Your task to perform on an android device: Go to display settings Image 0: 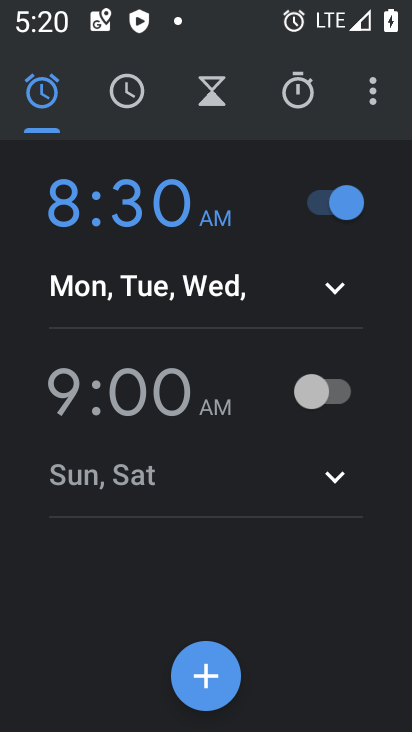
Step 0: press home button
Your task to perform on an android device: Go to display settings Image 1: 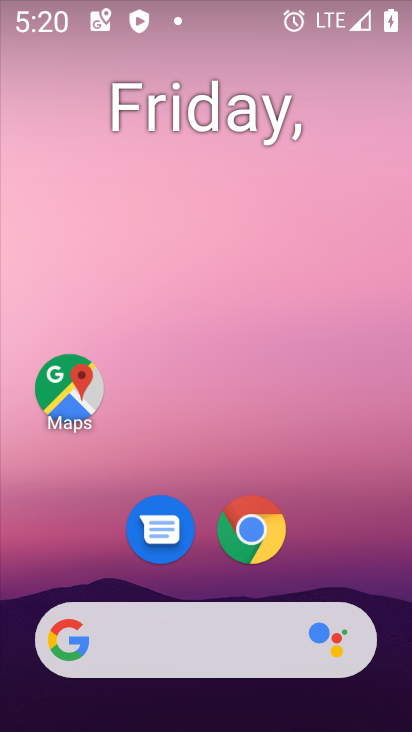
Step 1: drag from (342, 460) to (222, 50)
Your task to perform on an android device: Go to display settings Image 2: 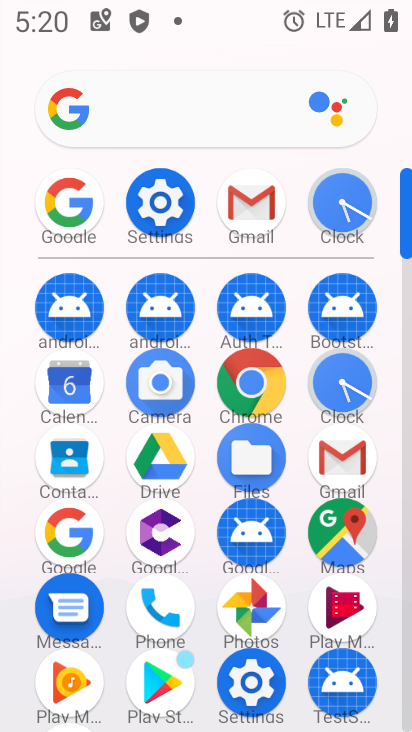
Step 2: click (161, 184)
Your task to perform on an android device: Go to display settings Image 3: 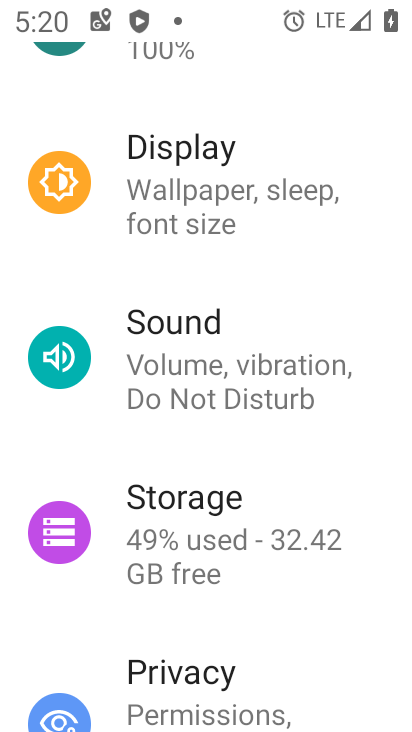
Step 3: click (235, 185)
Your task to perform on an android device: Go to display settings Image 4: 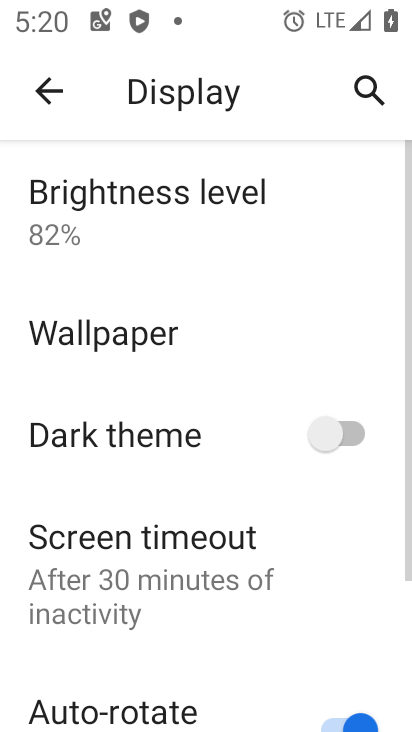
Step 4: task complete